Your task to perform on an android device: turn off priority inbox in the gmail app Image 0: 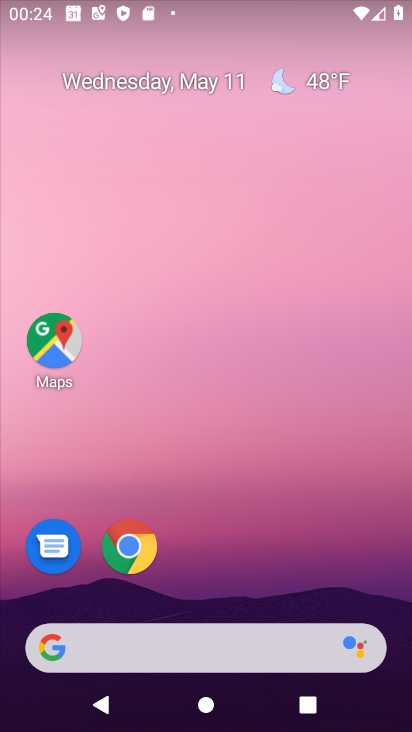
Step 0: drag from (189, 575) to (221, 292)
Your task to perform on an android device: turn off priority inbox in the gmail app Image 1: 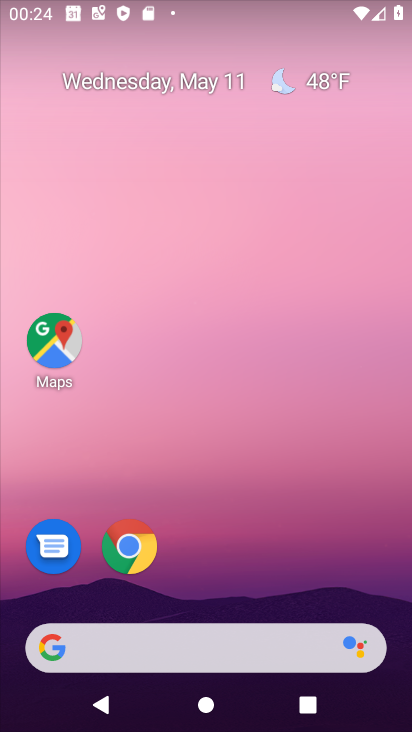
Step 1: drag from (218, 581) to (209, 156)
Your task to perform on an android device: turn off priority inbox in the gmail app Image 2: 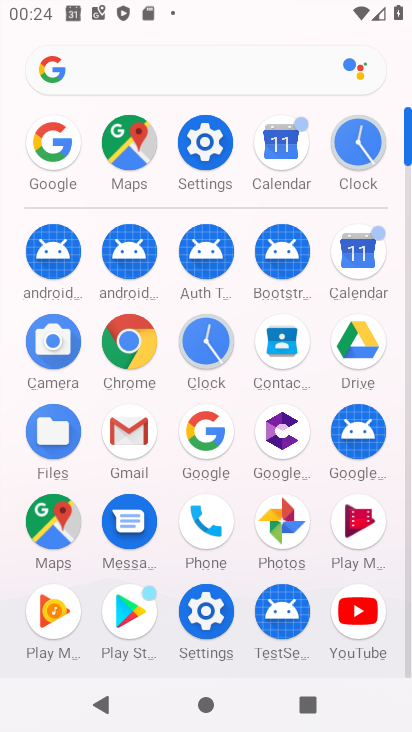
Step 2: click (129, 441)
Your task to perform on an android device: turn off priority inbox in the gmail app Image 3: 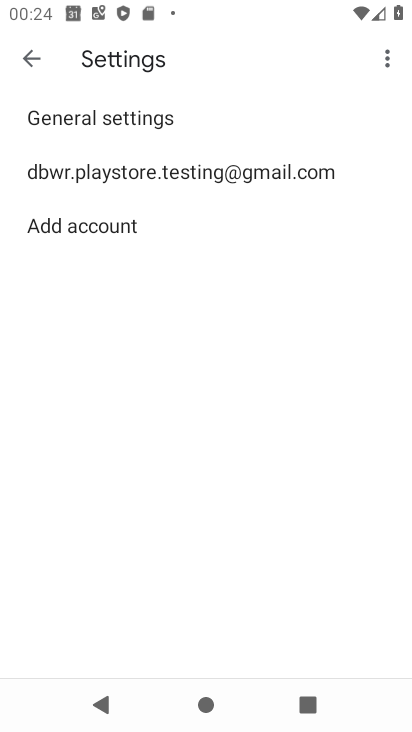
Step 3: click (155, 174)
Your task to perform on an android device: turn off priority inbox in the gmail app Image 4: 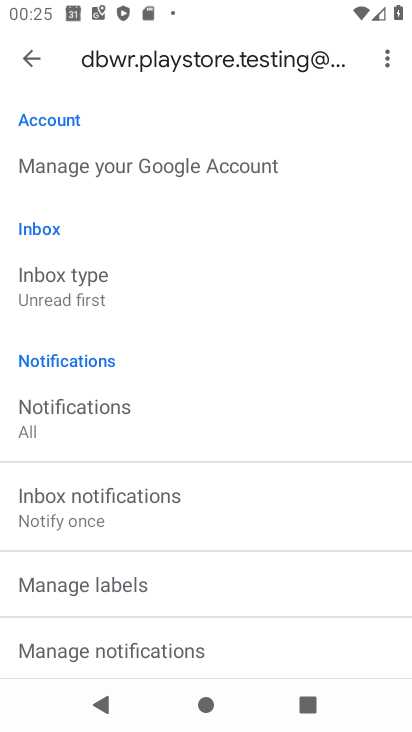
Step 4: click (34, 58)
Your task to perform on an android device: turn off priority inbox in the gmail app Image 5: 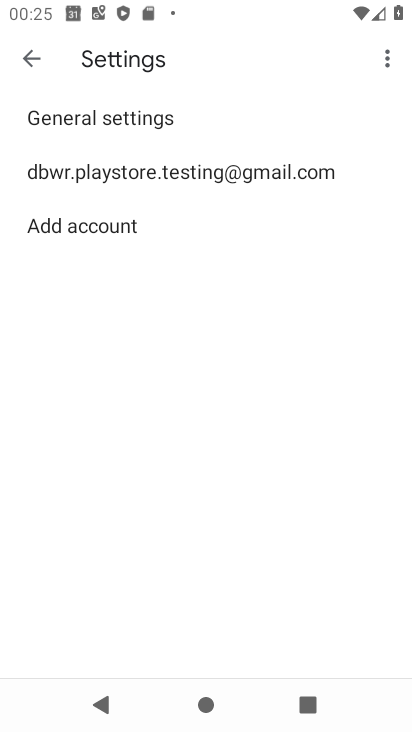
Step 5: click (34, 58)
Your task to perform on an android device: turn off priority inbox in the gmail app Image 6: 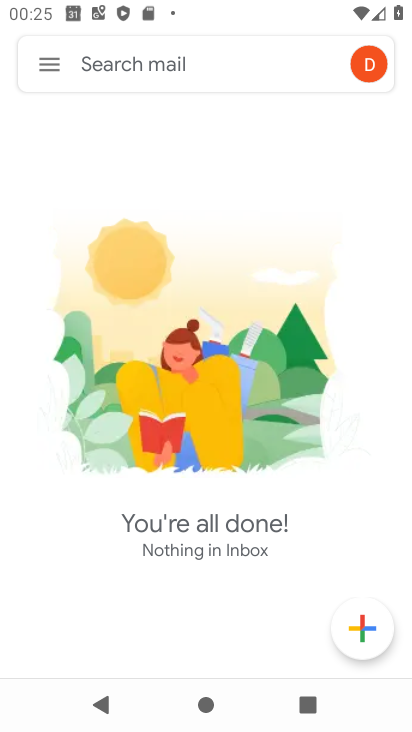
Step 6: click (41, 60)
Your task to perform on an android device: turn off priority inbox in the gmail app Image 7: 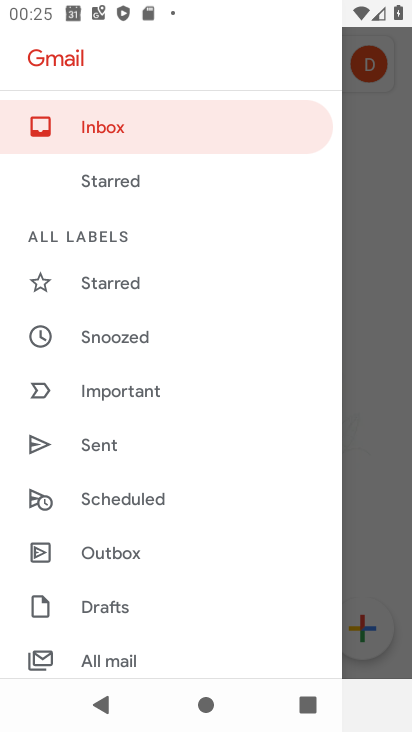
Step 7: drag from (157, 618) to (178, 296)
Your task to perform on an android device: turn off priority inbox in the gmail app Image 8: 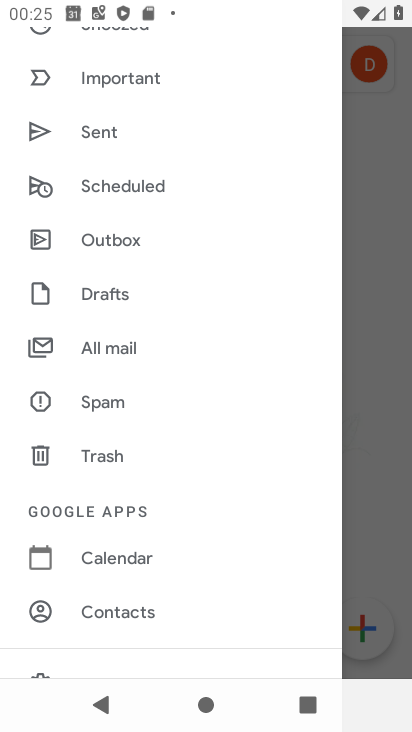
Step 8: drag from (154, 592) to (139, 425)
Your task to perform on an android device: turn off priority inbox in the gmail app Image 9: 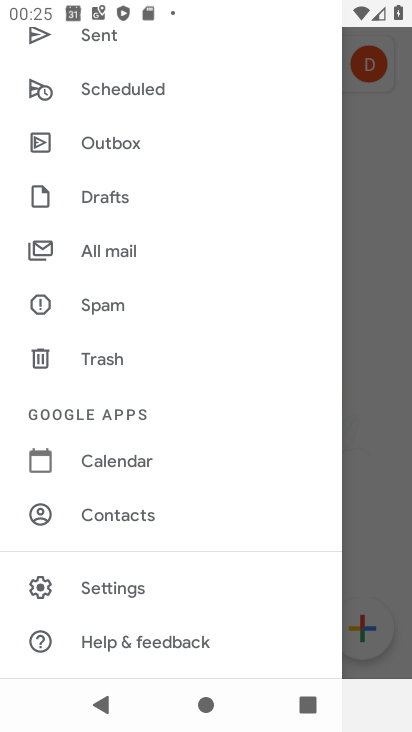
Step 9: click (144, 588)
Your task to perform on an android device: turn off priority inbox in the gmail app Image 10: 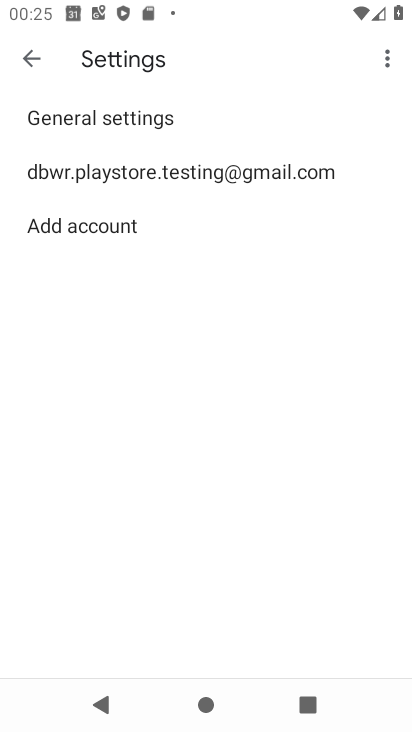
Step 10: click (197, 171)
Your task to perform on an android device: turn off priority inbox in the gmail app Image 11: 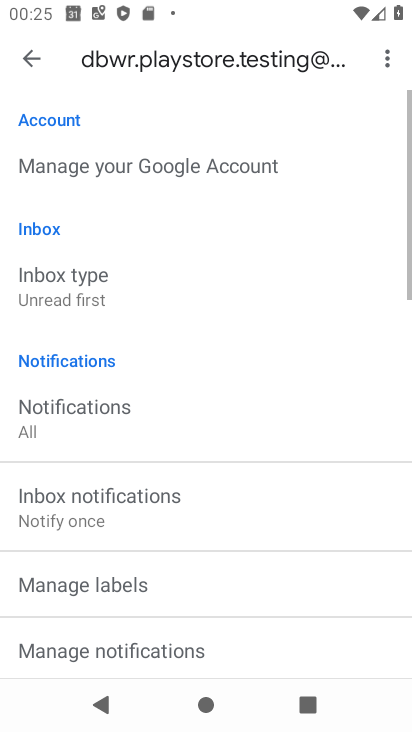
Step 11: drag from (217, 533) to (231, 302)
Your task to perform on an android device: turn off priority inbox in the gmail app Image 12: 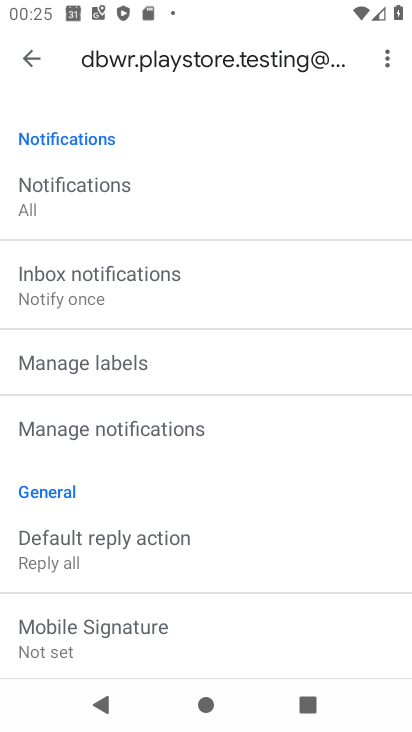
Step 12: drag from (167, 629) to (178, 401)
Your task to perform on an android device: turn off priority inbox in the gmail app Image 13: 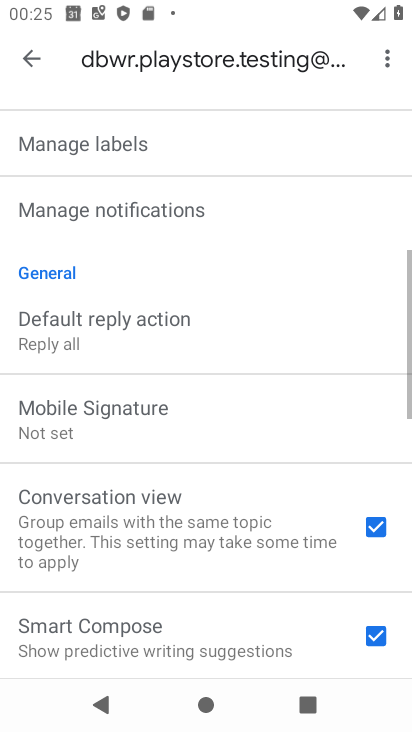
Step 13: drag from (156, 620) to (145, 355)
Your task to perform on an android device: turn off priority inbox in the gmail app Image 14: 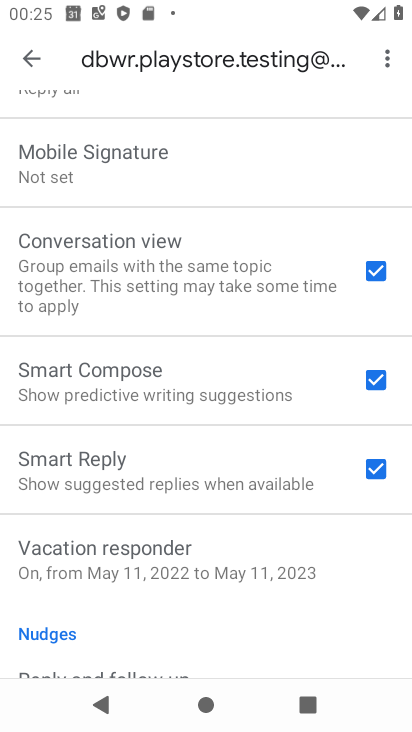
Step 14: drag from (137, 210) to (137, 596)
Your task to perform on an android device: turn off priority inbox in the gmail app Image 15: 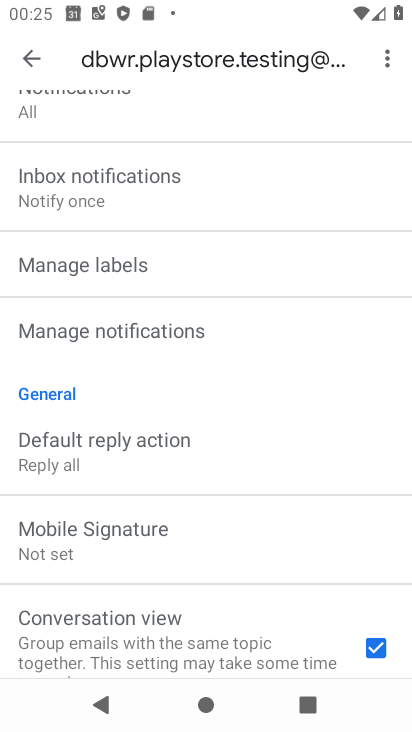
Step 15: drag from (169, 222) to (169, 531)
Your task to perform on an android device: turn off priority inbox in the gmail app Image 16: 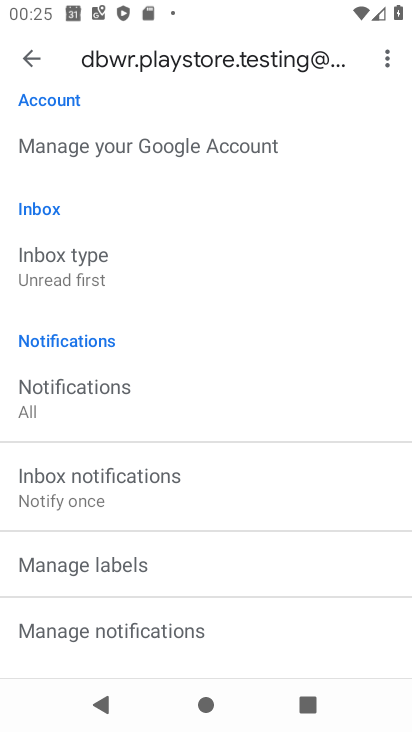
Step 16: drag from (195, 188) to (195, 338)
Your task to perform on an android device: turn off priority inbox in the gmail app Image 17: 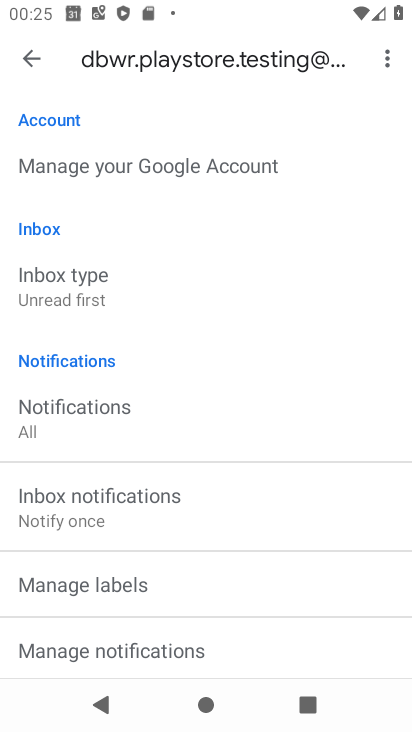
Step 17: click (70, 300)
Your task to perform on an android device: turn off priority inbox in the gmail app Image 18: 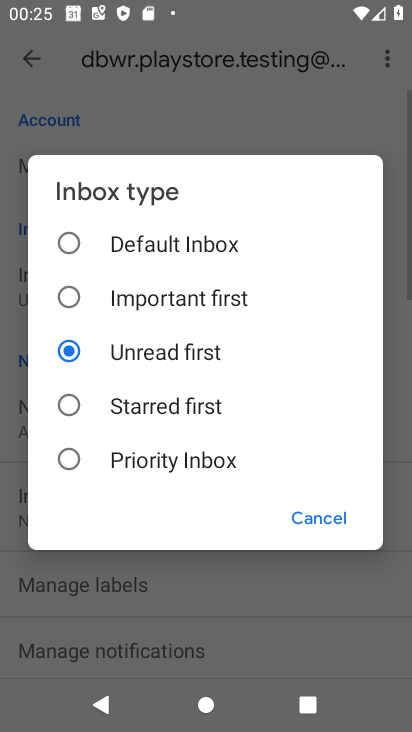
Step 18: click (133, 466)
Your task to perform on an android device: turn off priority inbox in the gmail app Image 19: 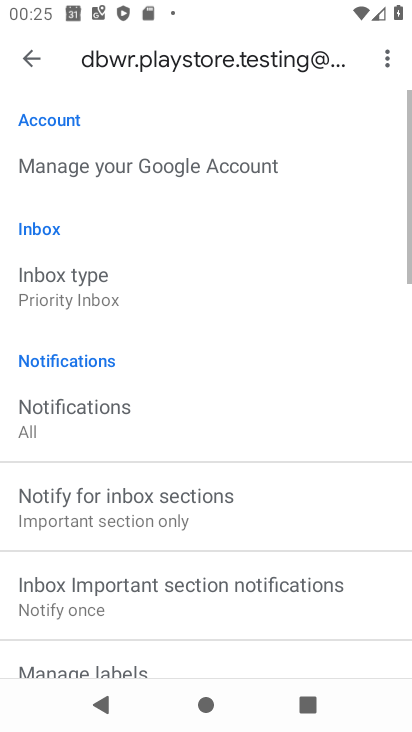
Step 19: task complete